Your task to perform on an android device: Go to display settings Image 0: 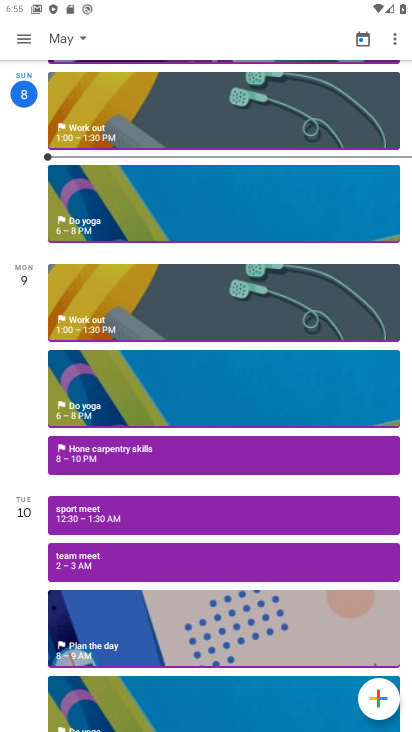
Step 0: press home button
Your task to perform on an android device: Go to display settings Image 1: 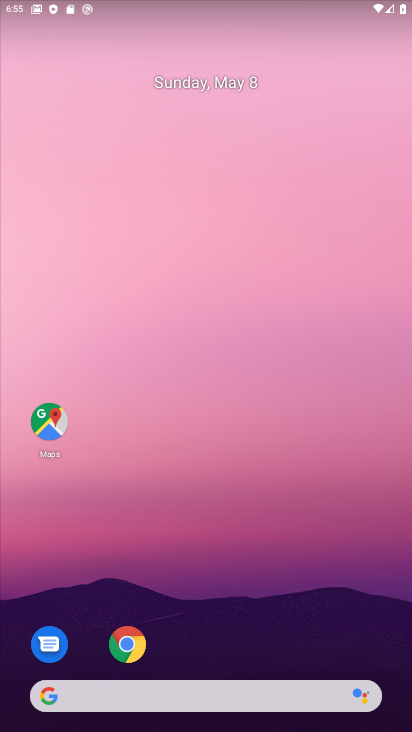
Step 1: drag from (319, 629) to (330, 510)
Your task to perform on an android device: Go to display settings Image 2: 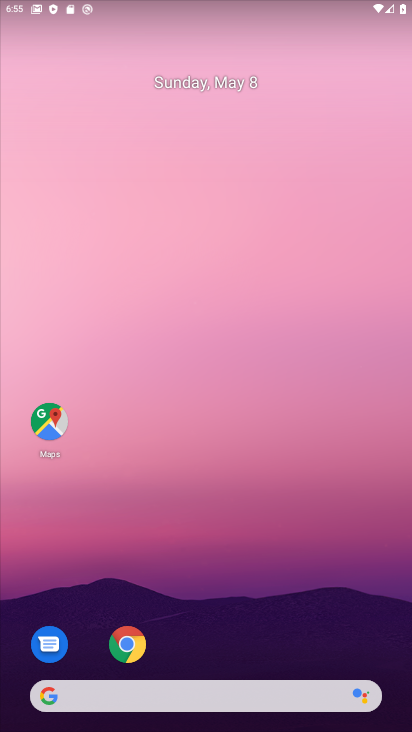
Step 2: drag from (296, 589) to (285, 307)
Your task to perform on an android device: Go to display settings Image 3: 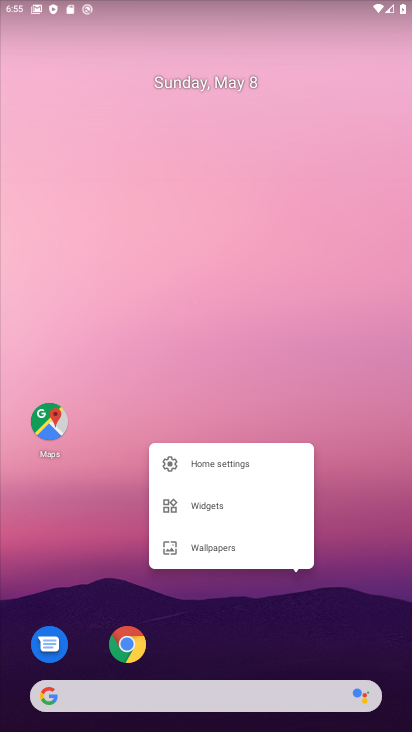
Step 3: click (285, 307)
Your task to perform on an android device: Go to display settings Image 4: 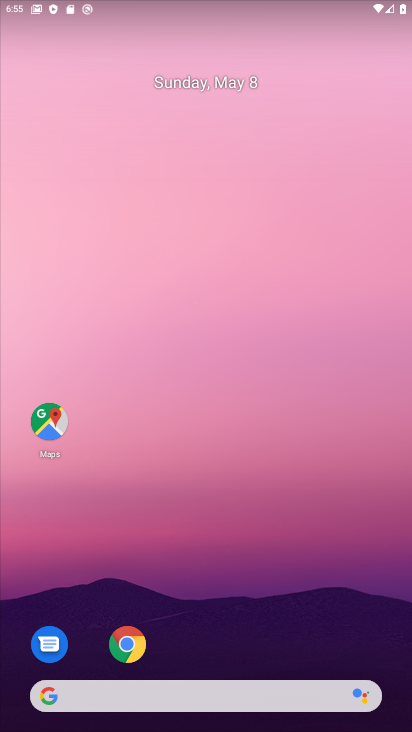
Step 4: click (285, 307)
Your task to perform on an android device: Go to display settings Image 5: 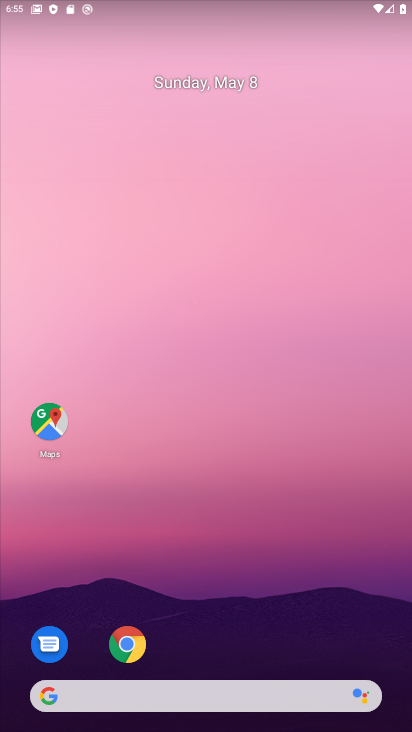
Step 5: drag from (281, 691) to (298, 361)
Your task to perform on an android device: Go to display settings Image 6: 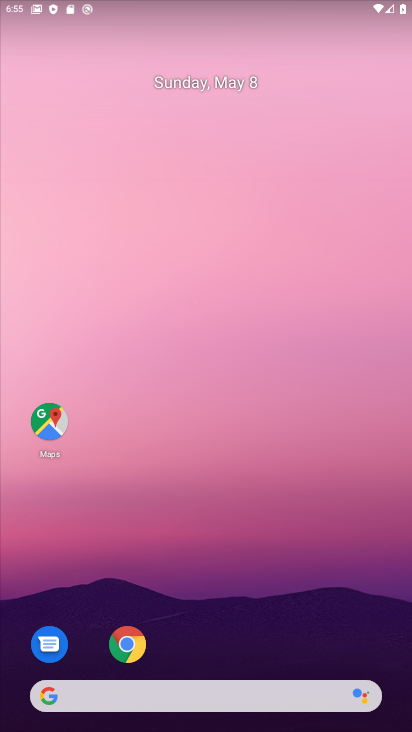
Step 6: drag from (297, 613) to (278, 4)
Your task to perform on an android device: Go to display settings Image 7: 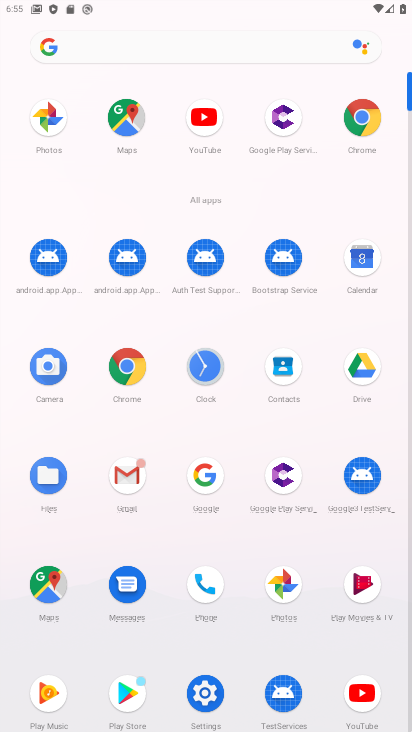
Step 7: click (211, 695)
Your task to perform on an android device: Go to display settings Image 8: 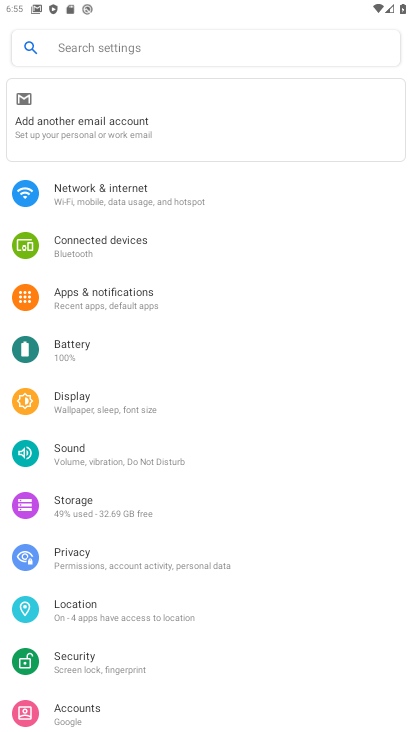
Step 8: click (104, 400)
Your task to perform on an android device: Go to display settings Image 9: 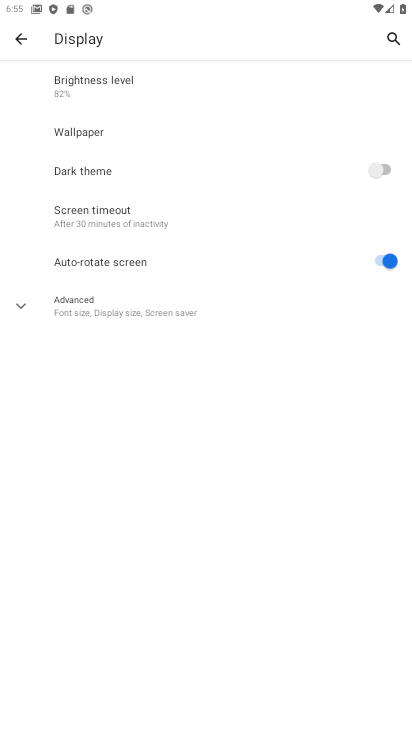
Step 9: task complete